Your task to perform on an android device: turn smart compose on in the gmail app Image 0: 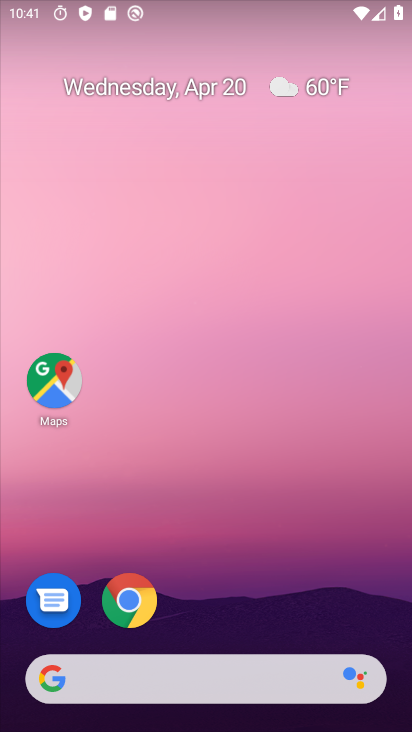
Step 0: drag from (192, 624) to (154, 76)
Your task to perform on an android device: turn smart compose on in the gmail app Image 1: 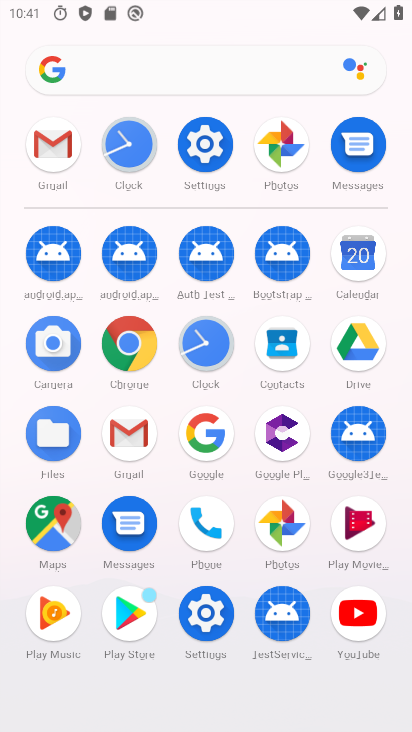
Step 1: click (123, 426)
Your task to perform on an android device: turn smart compose on in the gmail app Image 2: 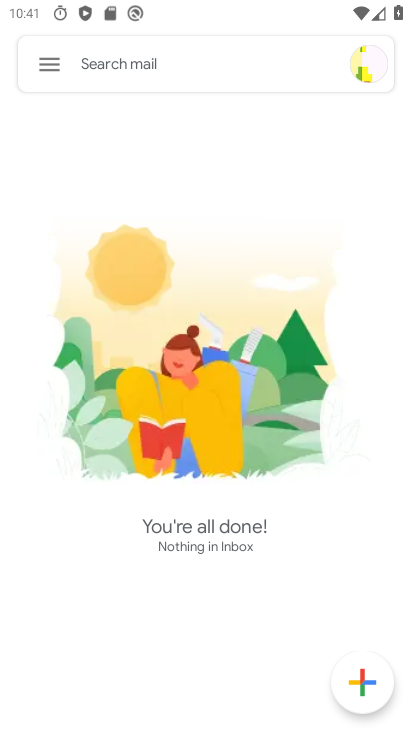
Step 2: click (56, 73)
Your task to perform on an android device: turn smart compose on in the gmail app Image 3: 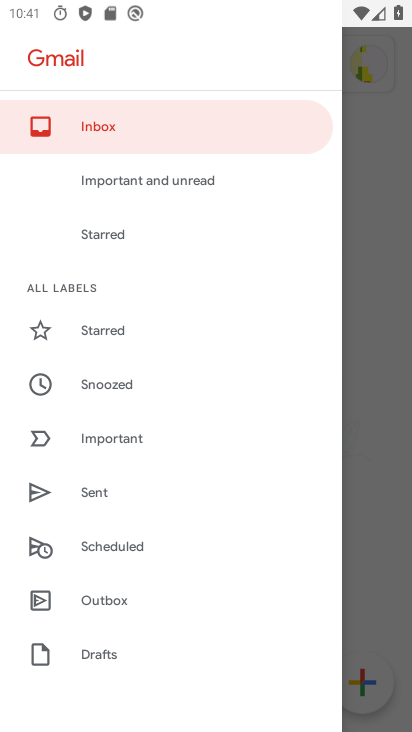
Step 3: drag from (141, 650) to (147, 256)
Your task to perform on an android device: turn smart compose on in the gmail app Image 4: 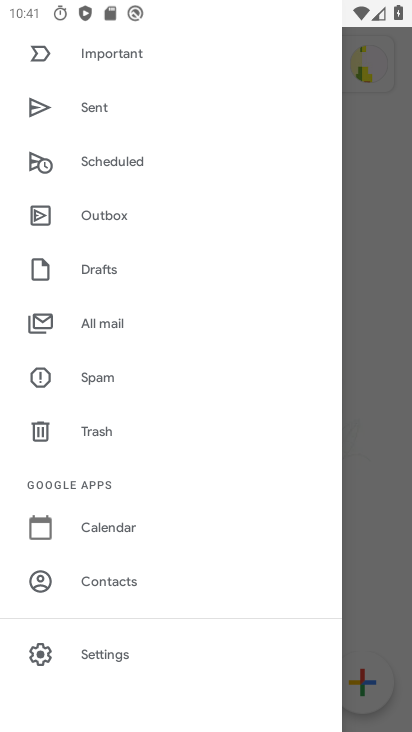
Step 4: click (156, 663)
Your task to perform on an android device: turn smart compose on in the gmail app Image 5: 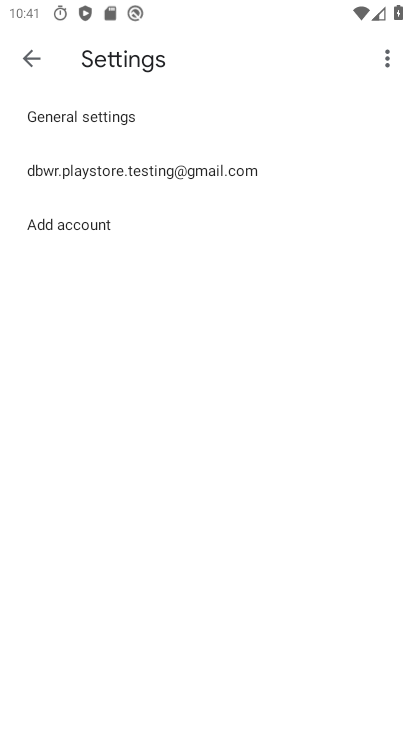
Step 5: click (285, 181)
Your task to perform on an android device: turn smart compose on in the gmail app Image 6: 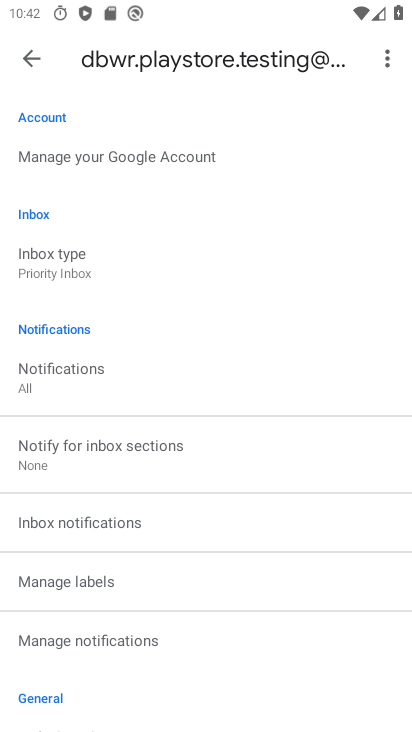
Step 6: drag from (157, 634) to (149, 176)
Your task to perform on an android device: turn smart compose on in the gmail app Image 7: 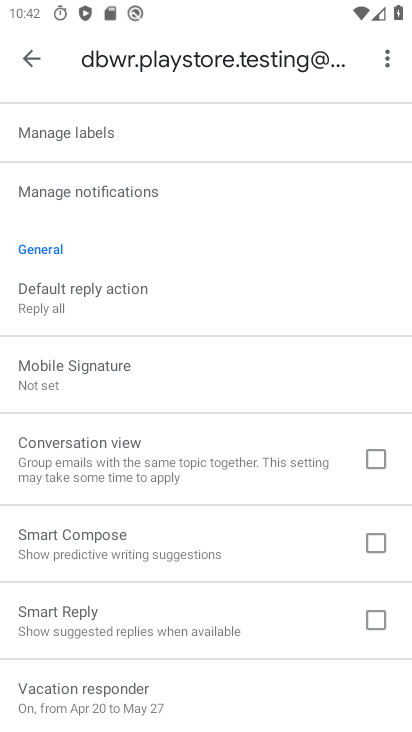
Step 7: click (376, 544)
Your task to perform on an android device: turn smart compose on in the gmail app Image 8: 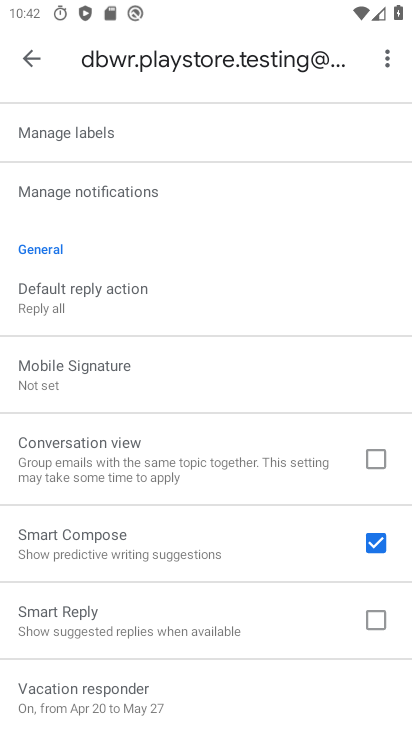
Step 8: task complete